Your task to perform on an android device: add a contact in the contacts app Image 0: 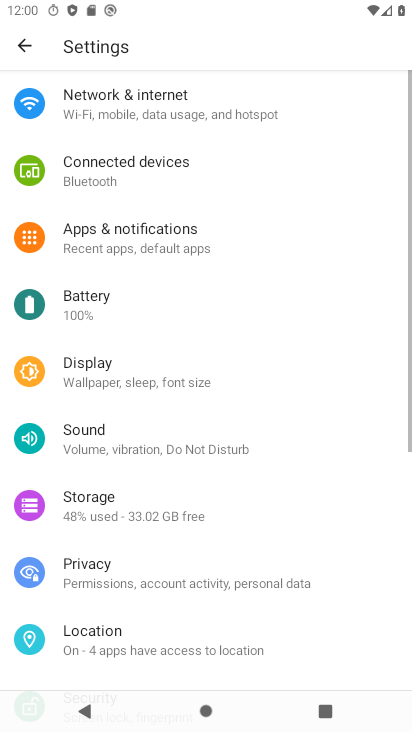
Step 0: press home button
Your task to perform on an android device: add a contact in the contacts app Image 1: 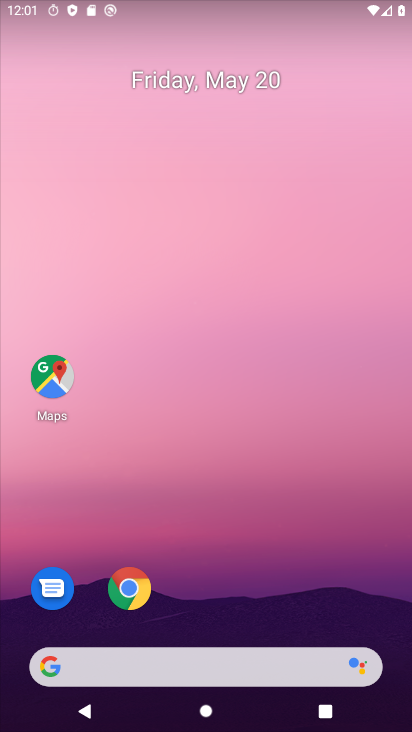
Step 1: drag from (261, 618) to (309, 134)
Your task to perform on an android device: add a contact in the contacts app Image 2: 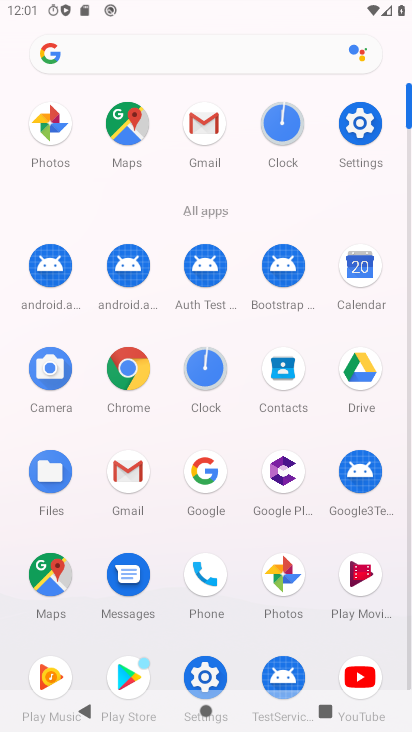
Step 2: click (289, 375)
Your task to perform on an android device: add a contact in the contacts app Image 3: 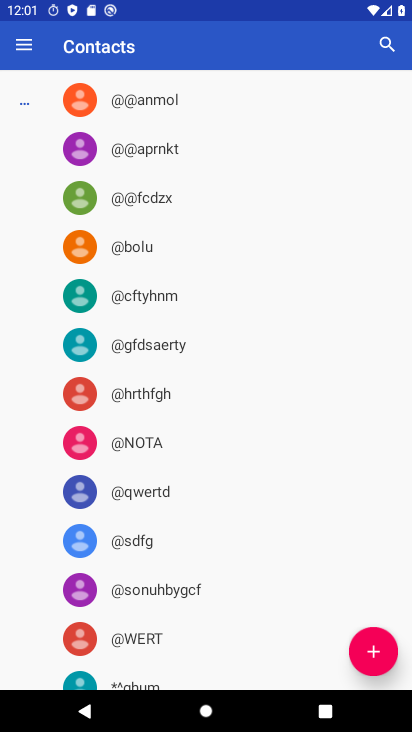
Step 3: click (384, 649)
Your task to perform on an android device: add a contact in the contacts app Image 4: 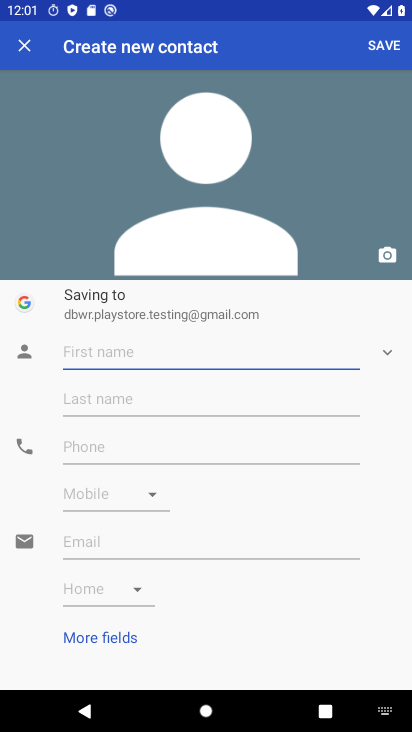
Step 4: type "tv"
Your task to perform on an android device: add a contact in the contacts app Image 5: 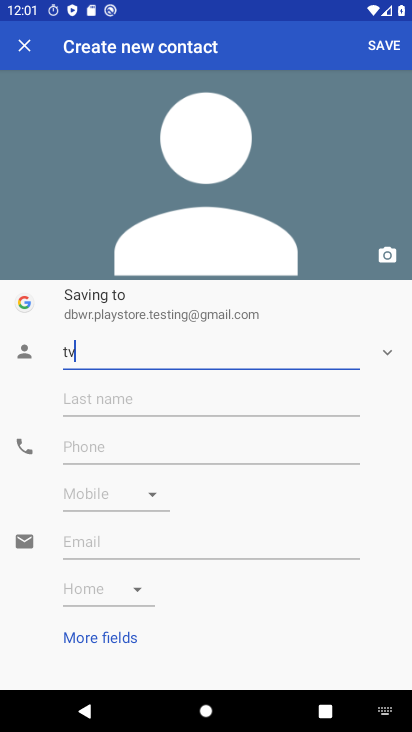
Step 5: click (159, 459)
Your task to perform on an android device: add a contact in the contacts app Image 6: 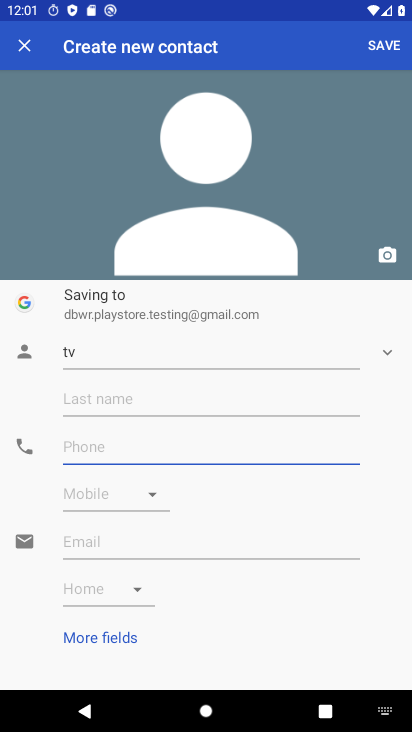
Step 6: type "9988776654"
Your task to perform on an android device: add a contact in the contacts app Image 7: 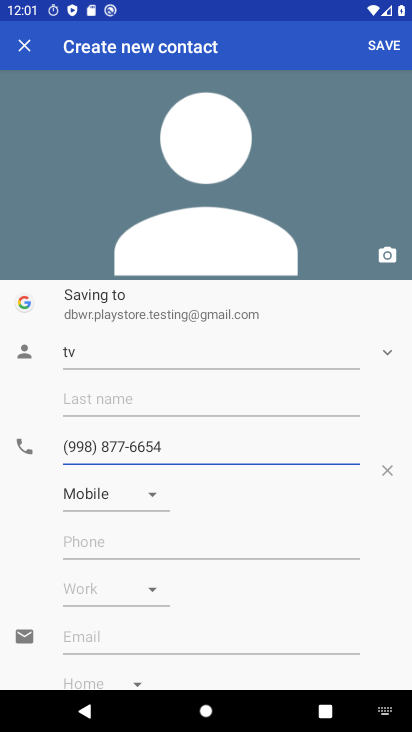
Step 7: click (377, 47)
Your task to perform on an android device: add a contact in the contacts app Image 8: 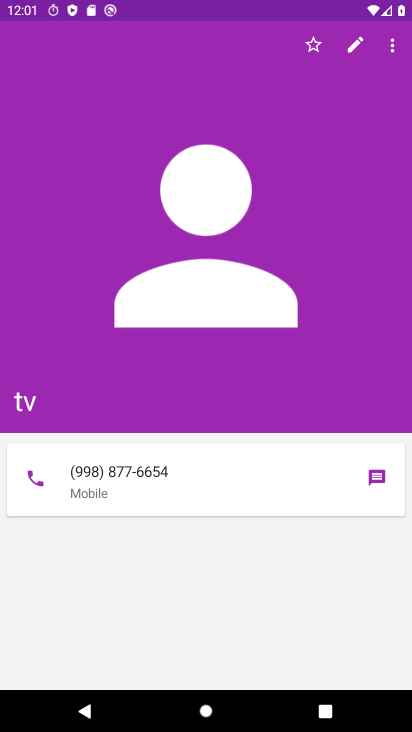
Step 8: task complete